Your task to perform on an android device: Set the phone to "Do not disturb". Image 0: 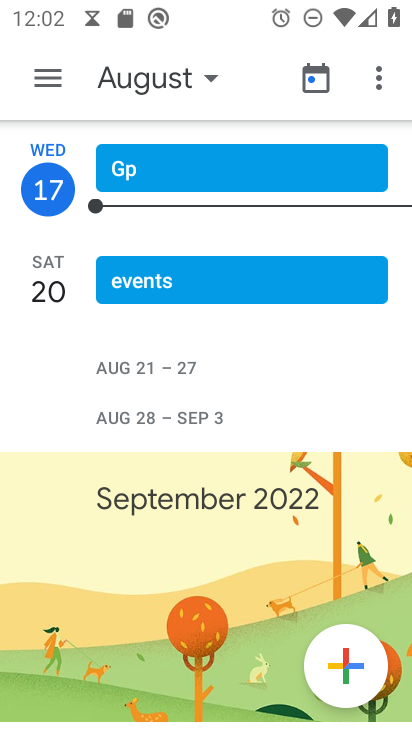
Step 0: press home button
Your task to perform on an android device: Set the phone to "Do not disturb". Image 1: 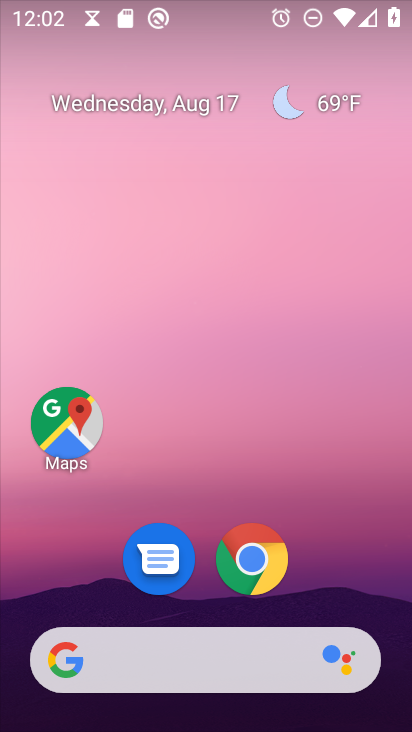
Step 1: drag from (195, 673) to (231, 166)
Your task to perform on an android device: Set the phone to "Do not disturb". Image 2: 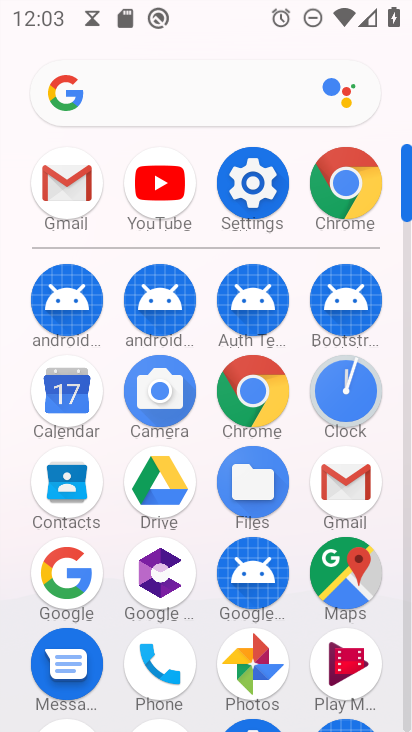
Step 2: click (253, 183)
Your task to perform on an android device: Set the phone to "Do not disturb". Image 3: 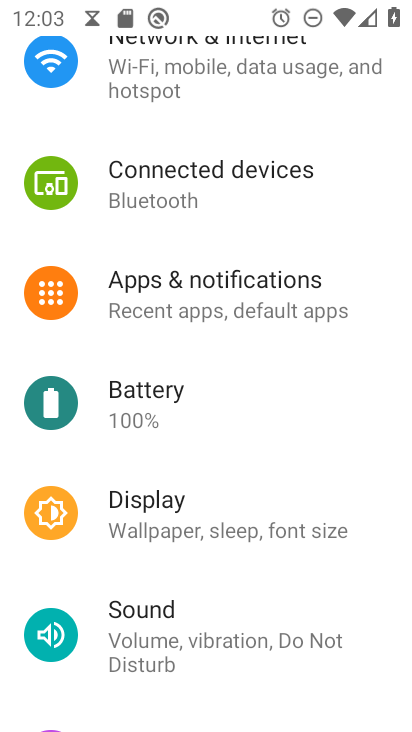
Step 3: click (161, 612)
Your task to perform on an android device: Set the phone to "Do not disturb". Image 4: 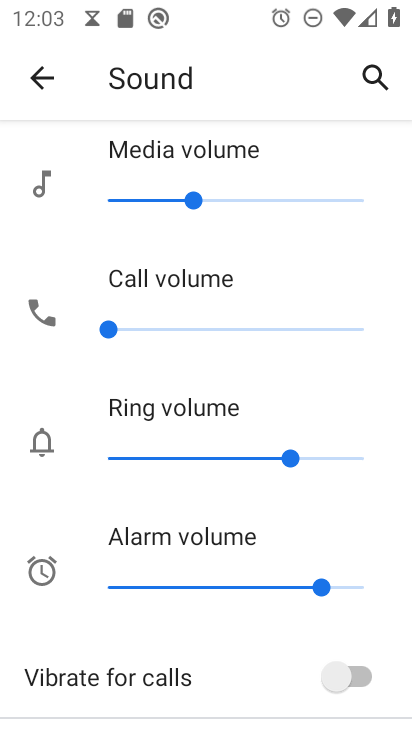
Step 4: drag from (138, 638) to (233, 453)
Your task to perform on an android device: Set the phone to "Do not disturb". Image 5: 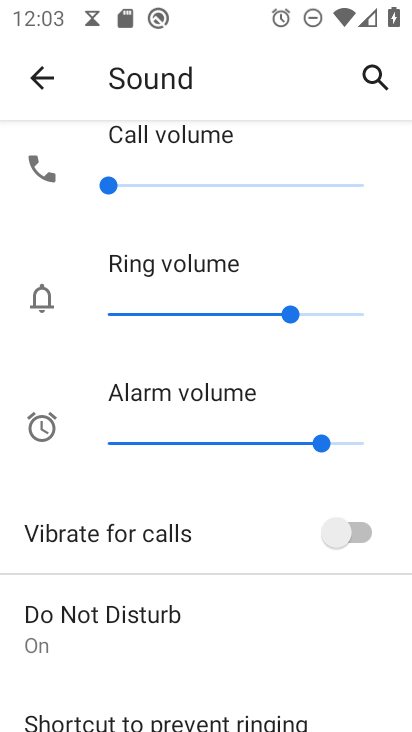
Step 5: click (172, 625)
Your task to perform on an android device: Set the phone to "Do not disturb". Image 6: 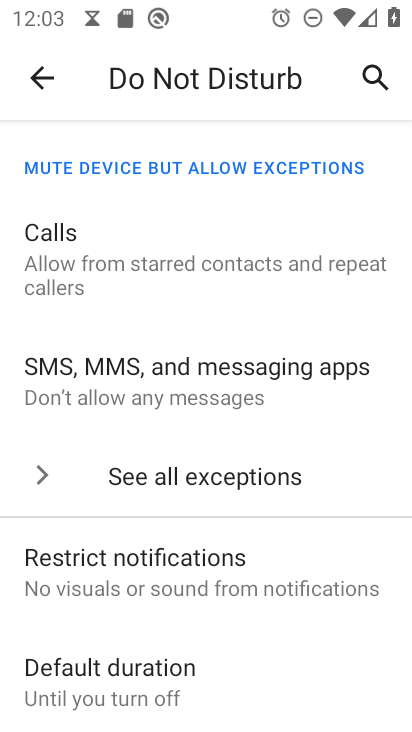
Step 6: task complete